Your task to perform on an android device: clear all cookies in the chrome app Image 0: 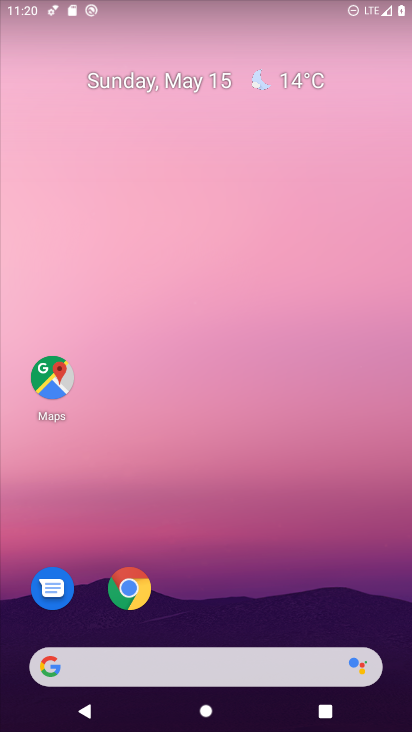
Step 0: click (131, 580)
Your task to perform on an android device: clear all cookies in the chrome app Image 1: 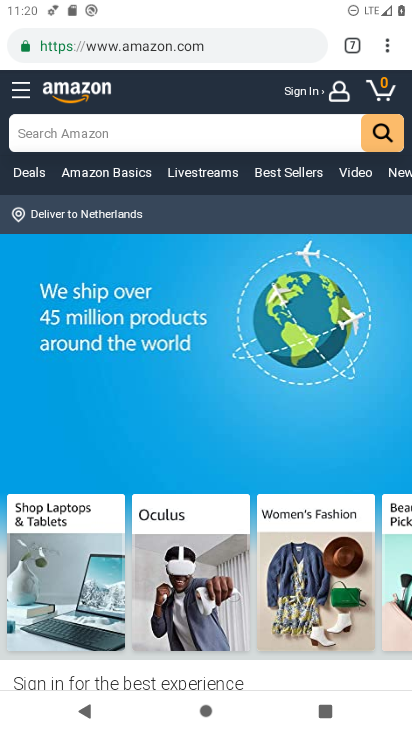
Step 1: click (392, 42)
Your task to perform on an android device: clear all cookies in the chrome app Image 2: 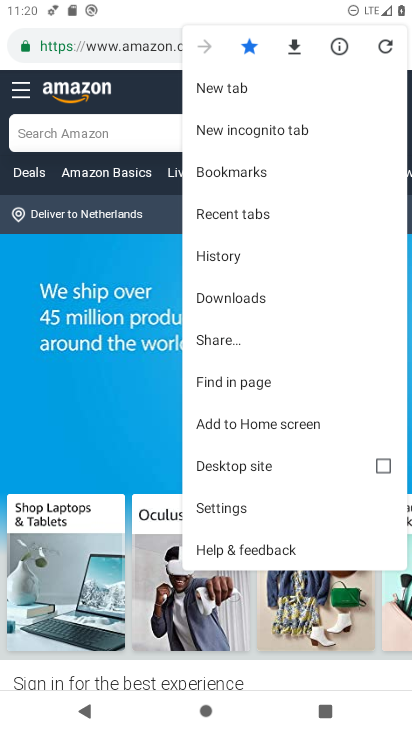
Step 2: click (223, 257)
Your task to perform on an android device: clear all cookies in the chrome app Image 3: 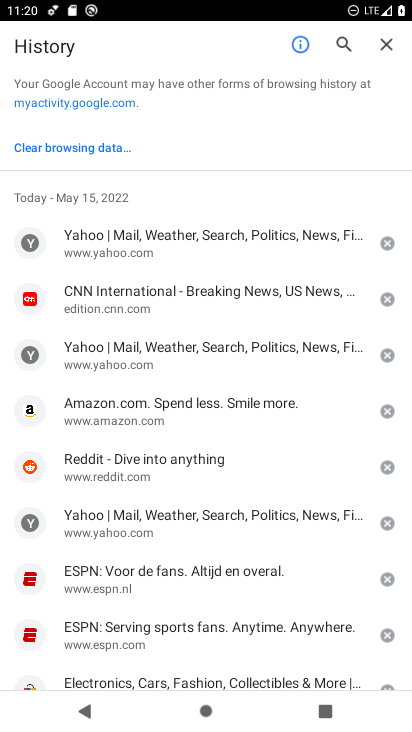
Step 3: click (97, 149)
Your task to perform on an android device: clear all cookies in the chrome app Image 4: 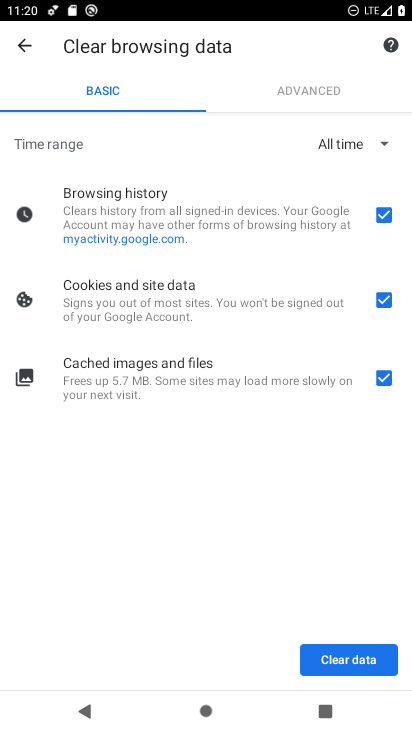
Step 4: click (383, 224)
Your task to perform on an android device: clear all cookies in the chrome app Image 5: 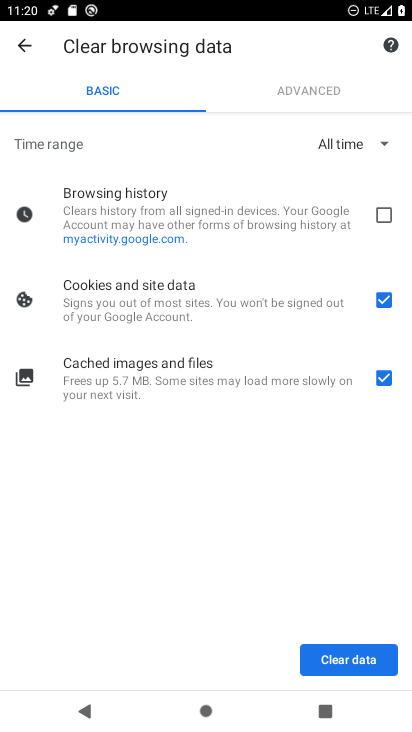
Step 5: click (383, 375)
Your task to perform on an android device: clear all cookies in the chrome app Image 6: 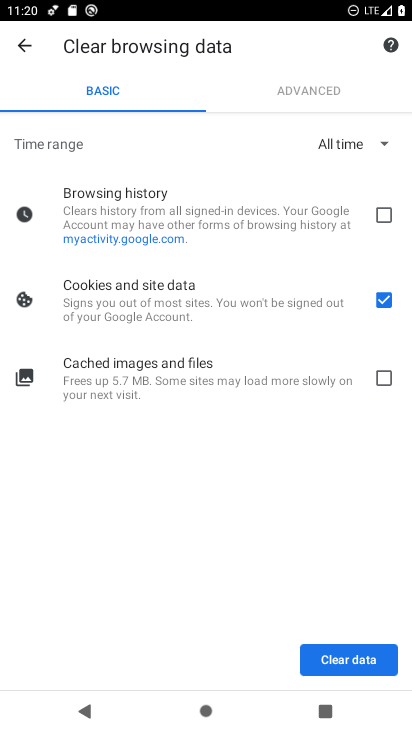
Step 6: click (376, 659)
Your task to perform on an android device: clear all cookies in the chrome app Image 7: 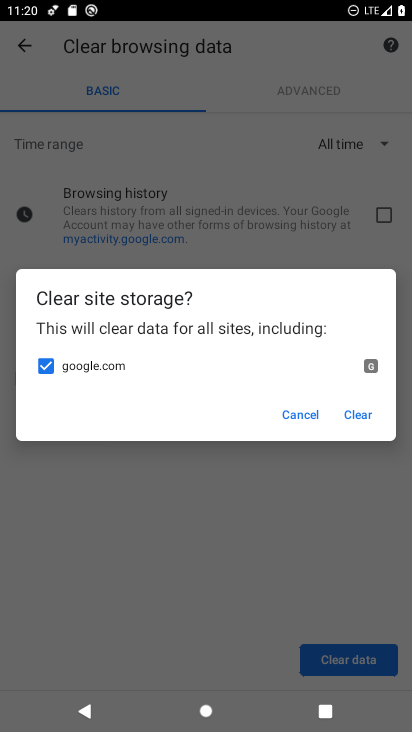
Step 7: click (362, 419)
Your task to perform on an android device: clear all cookies in the chrome app Image 8: 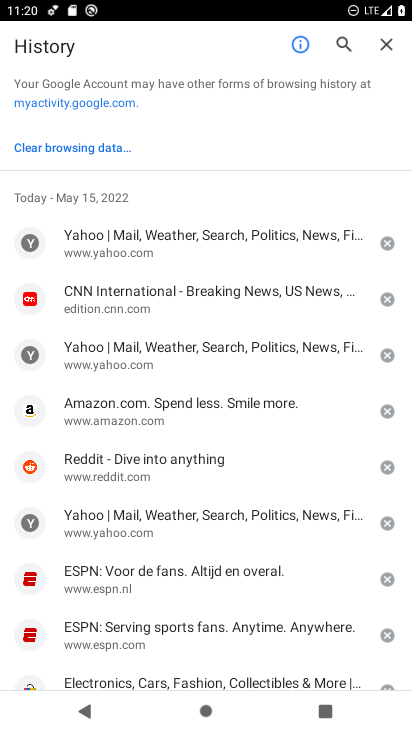
Step 8: task complete